Your task to perform on an android device: Open Wikipedia Image 0: 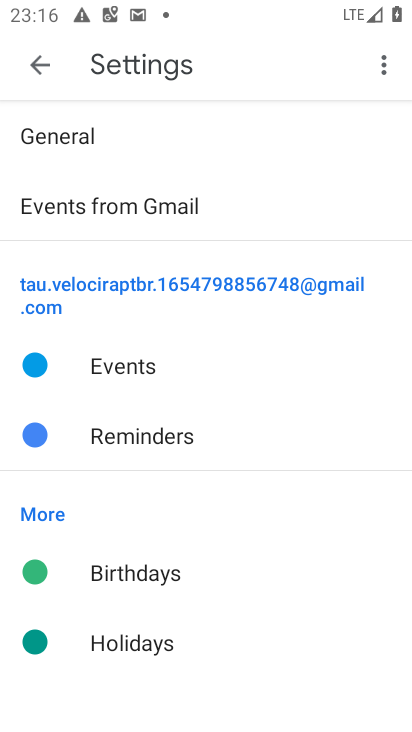
Step 0: press home button
Your task to perform on an android device: Open Wikipedia Image 1: 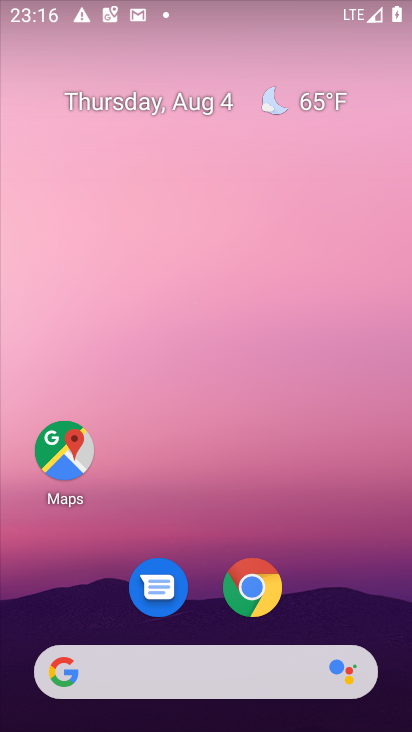
Step 1: drag from (261, 601) to (265, 216)
Your task to perform on an android device: Open Wikipedia Image 2: 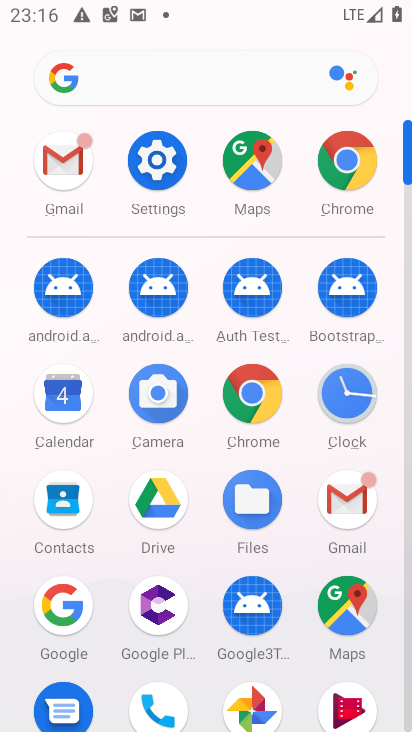
Step 2: click (335, 161)
Your task to perform on an android device: Open Wikipedia Image 3: 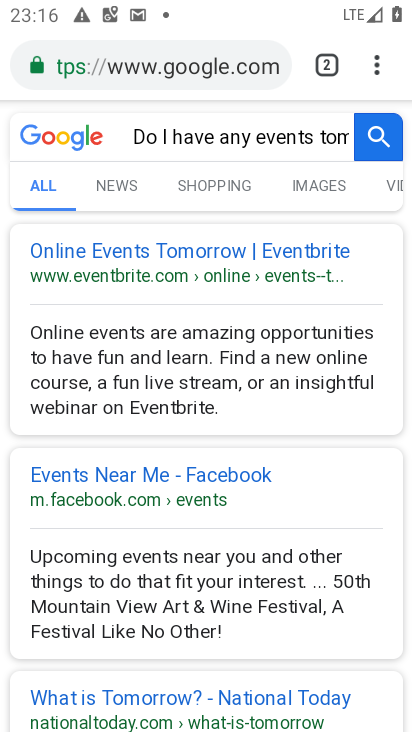
Step 3: click (376, 56)
Your task to perform on an android device: Open Wikipedia Image 4: 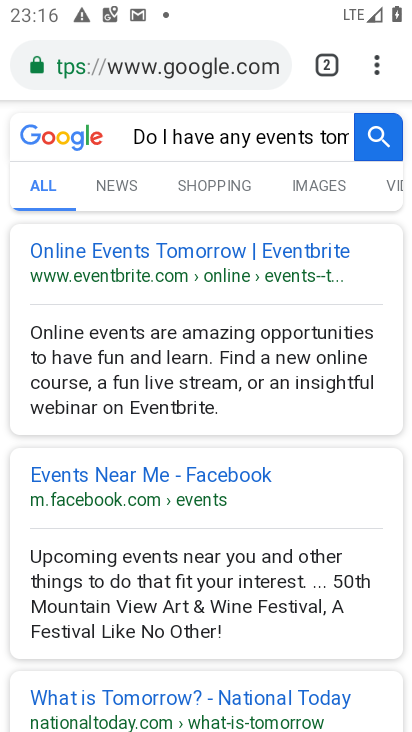
Step 4: click (383, 63)
Your task to perform on an android device: Open Wikipedia Image 5: 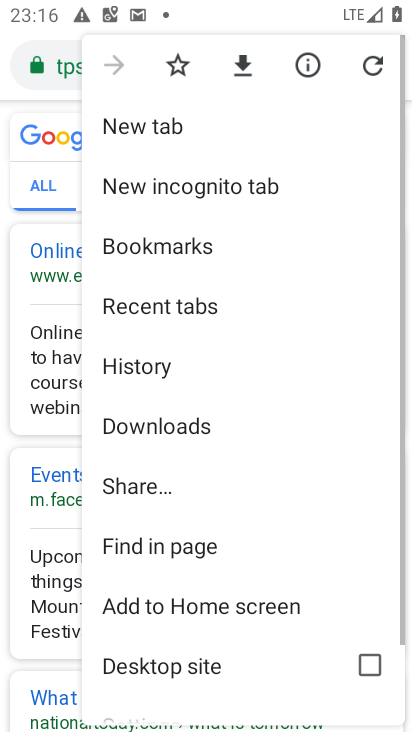
Step 5: click (169, 126)
Your task to perform on an android device: Open Wikipedia Image 6: 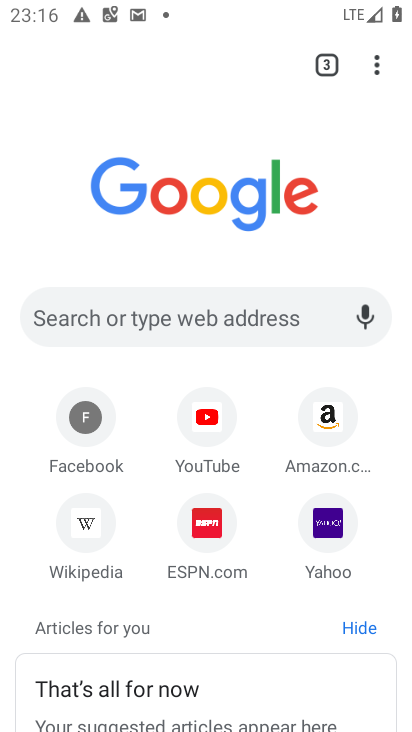
Step 6: click (76, 524)
Your task to perform on an android device: Open Wikipedia Image 7: 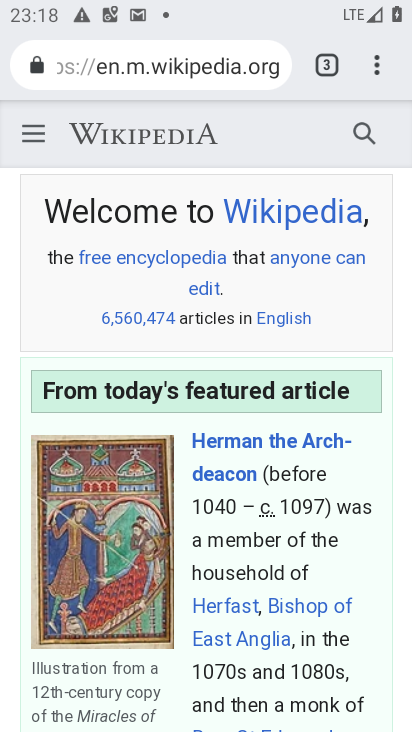
Step 7: task complete